Your task to perform on an android device: Open the map Image 0: 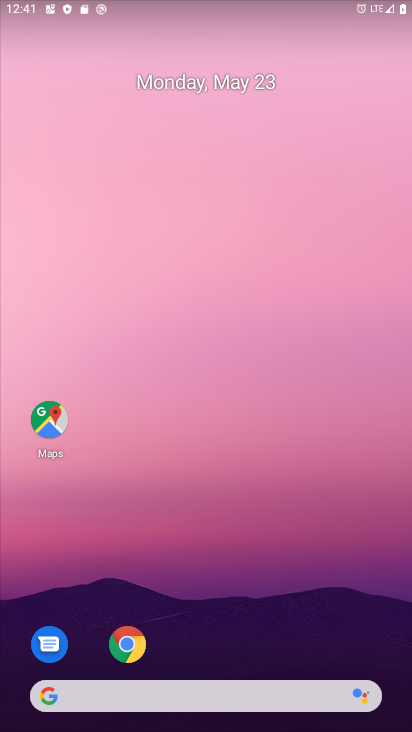
Step 0: drag from (368, 626) to (263, 7)
Your task to perform on an android device: Open the map Image 1: 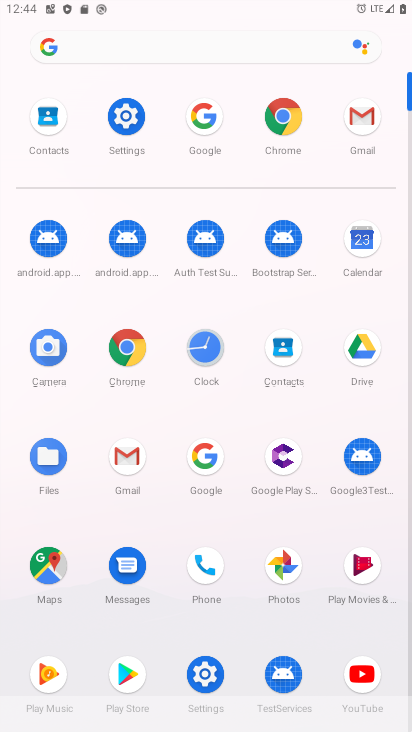
Step 1: click (55, 576)
Your task to perform on an android device: Open the map Image 2: 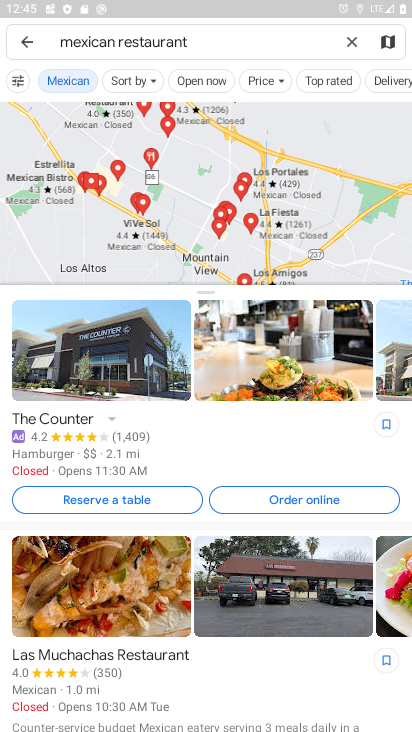
Step 2: click (345, 34)
Your task to perform on an android device: Open the map Image 3: 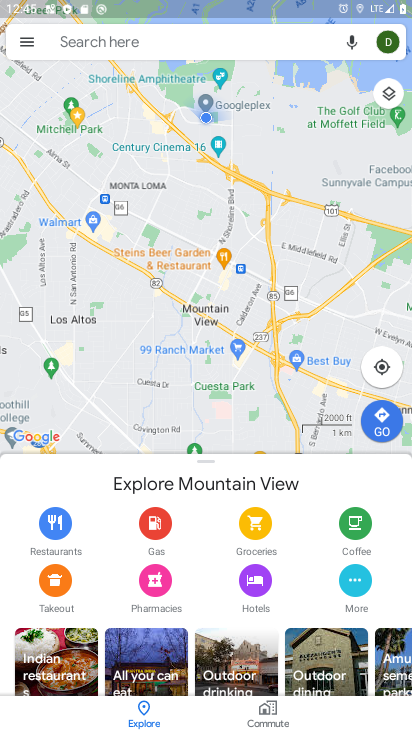
Step 3: task complete